Your task to perform on an android device: star an email in the gmail app Image 0: 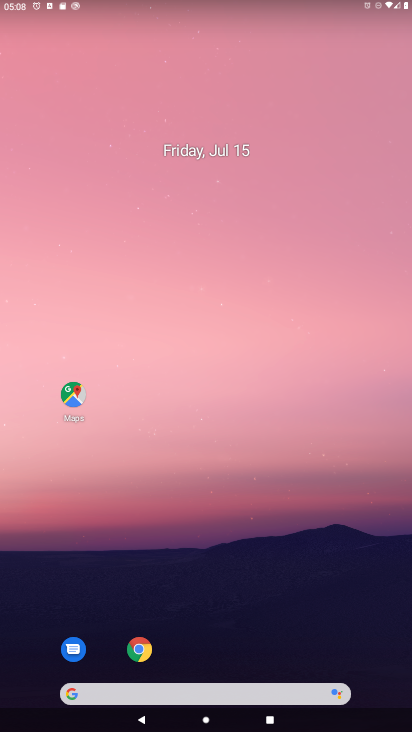
Step 0: drag from (402, 653) to (364, 107)
Your task to perform on an android device: star an email in the gmail app Image 1: 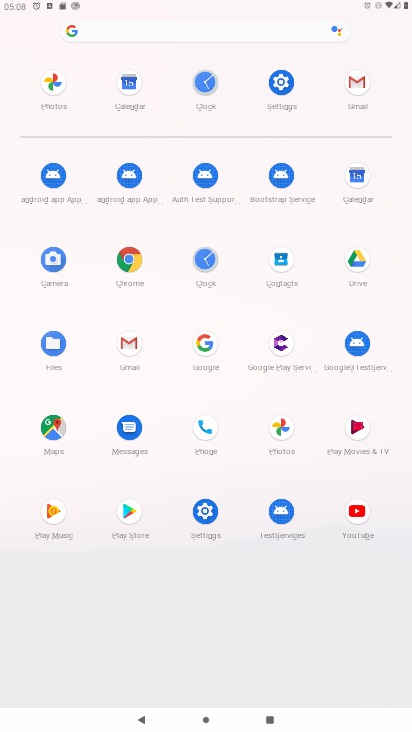
Step 1: click (128, 342)
Your task to perform on an android device: star an email in the gmail app Image 2: 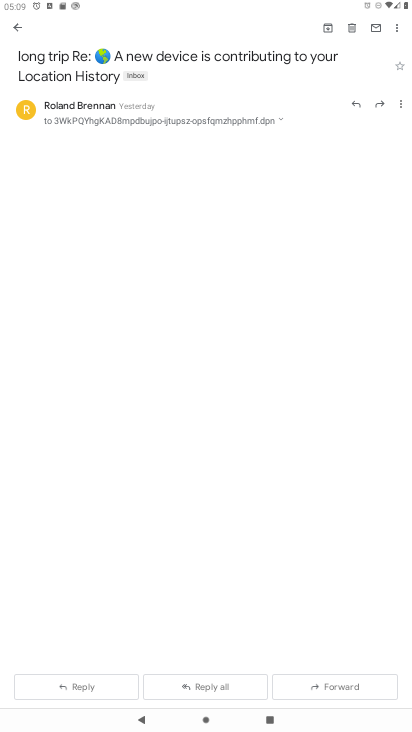
Step 2: click (397, 33)
Your task to perform on an android device: star an email in the gmail app Image 3: 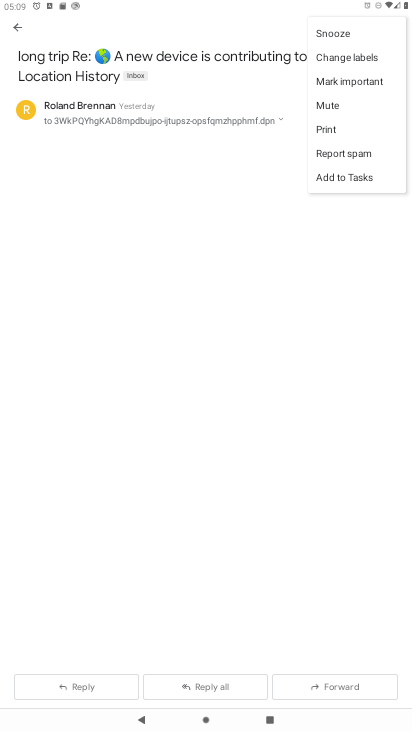
Step 3: click (295, 259)
Your task to perform on an android device: star an email in the gmail app Image 4: 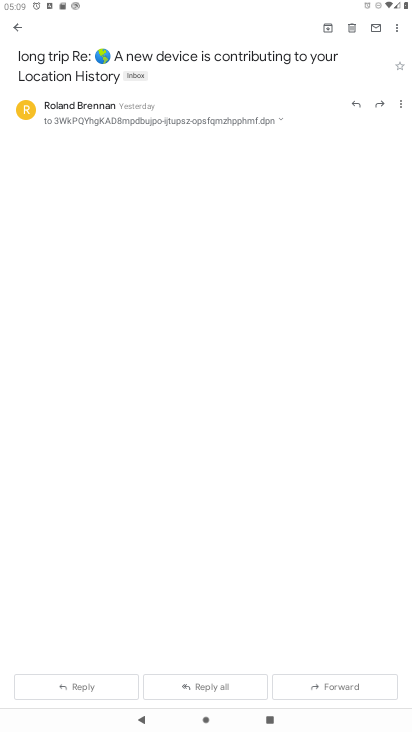
Step 4: click (399, 66)
Your task to perform on an android device: star an email in the gmail app Image 5: 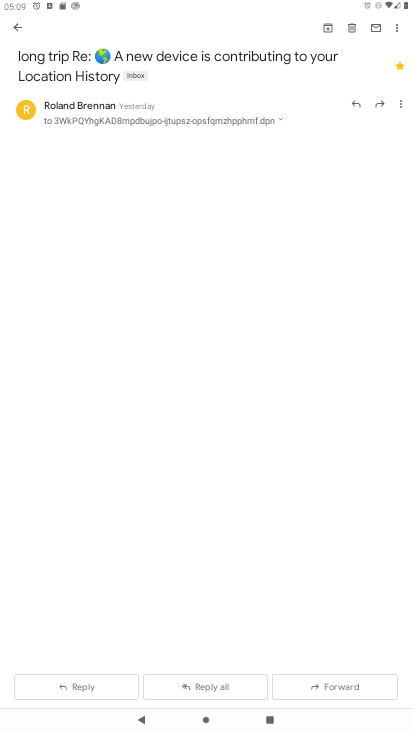
Step 5: task complete